Your task to perform on an android device: stop showing notifications on the lock screen Image 0: 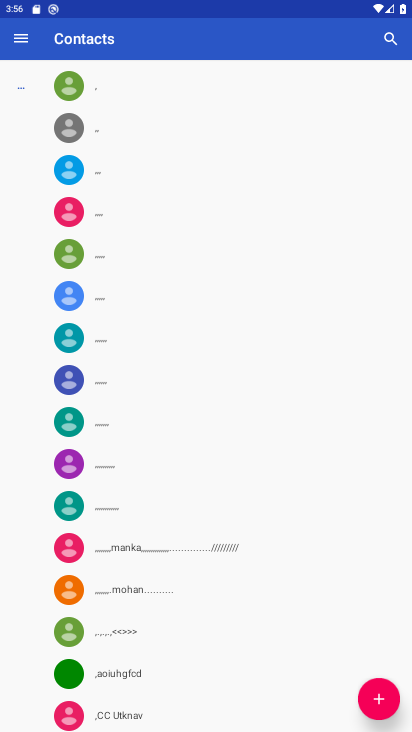
Step 0: press home button
Your task to perform on an android device: stop showing notifications on the lock screen Image 1: 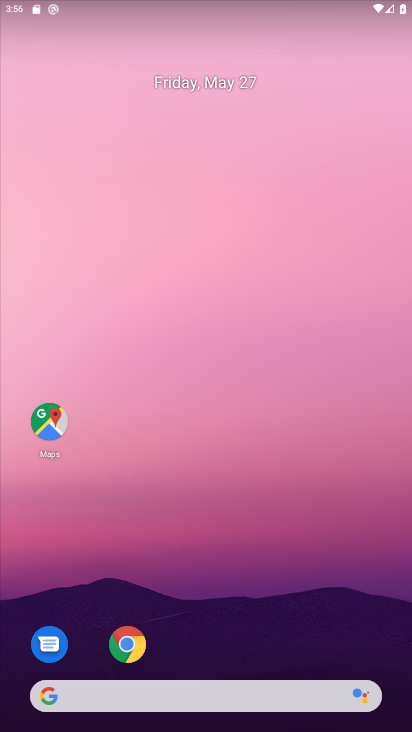
Step 1: drag from (328, 587) to (178, 4)
Your task to perform on an android device: stop showing notifications on the lock screen Image 2: 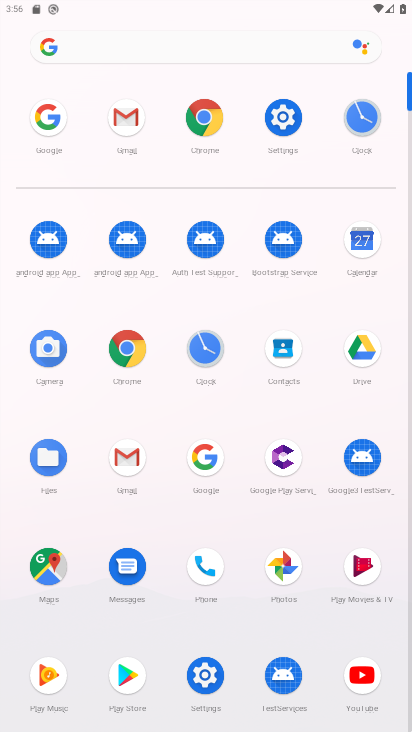
Step 2: click (283, 137)
Your task to perform on an android device: stop showing notifications on the lock screen Image 3: 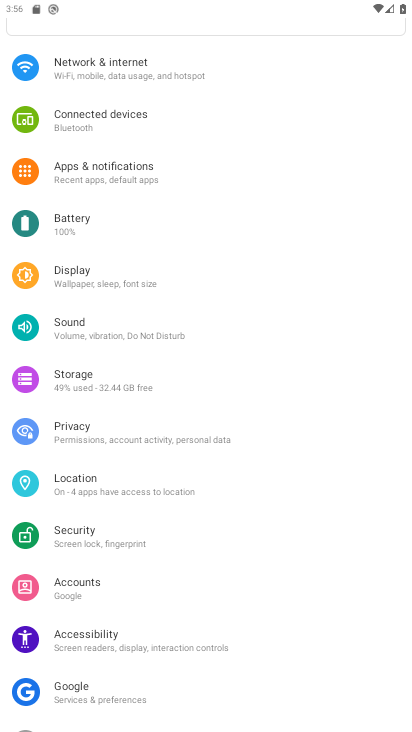
Step 3: click (143, 180)
Your task to perform on an android device: stop showing notifications on the lock screen Image 4: 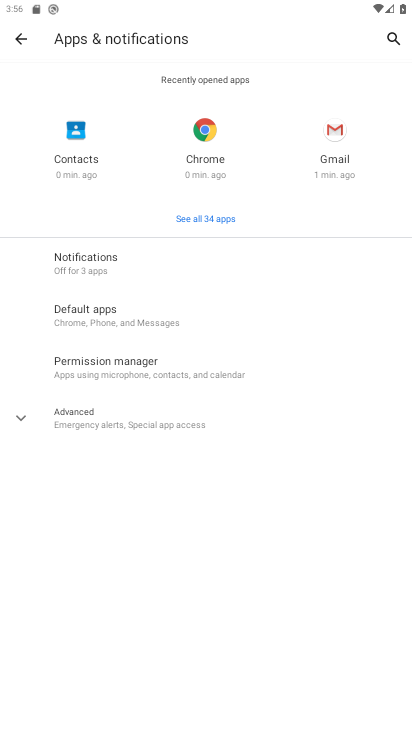
Step 4: click (179, 271)
Your task to perform on an android device: stop showing notifications on the lock screen Image 5: 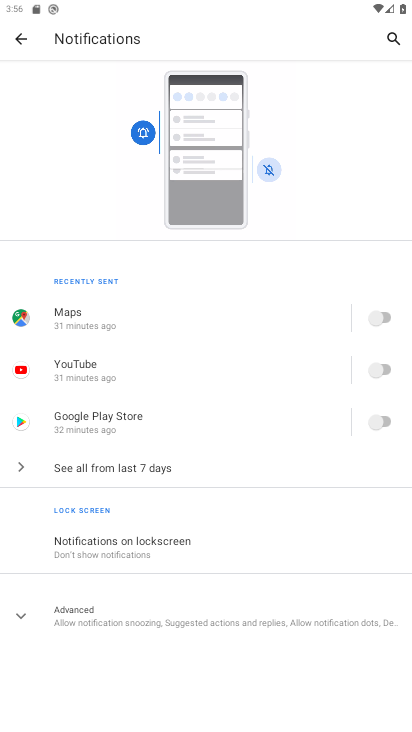
Step 5: click (172, 553)
Your task to perform on an android device: stop showing notifications on the lock screen Image 6: 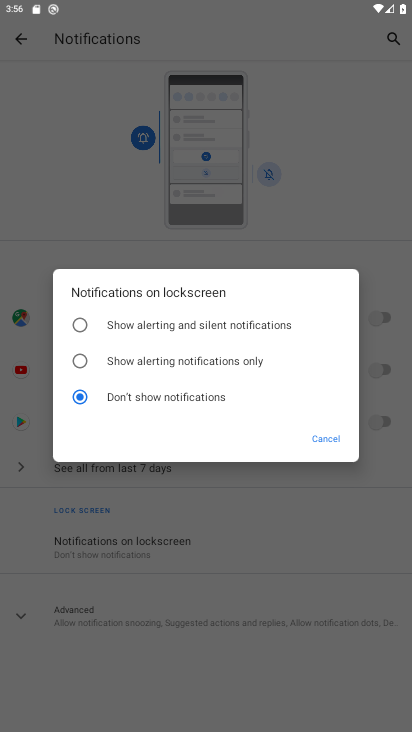
Step 6: task complete